Your task to perform on an android device: Open Yahoo.com Image 0: 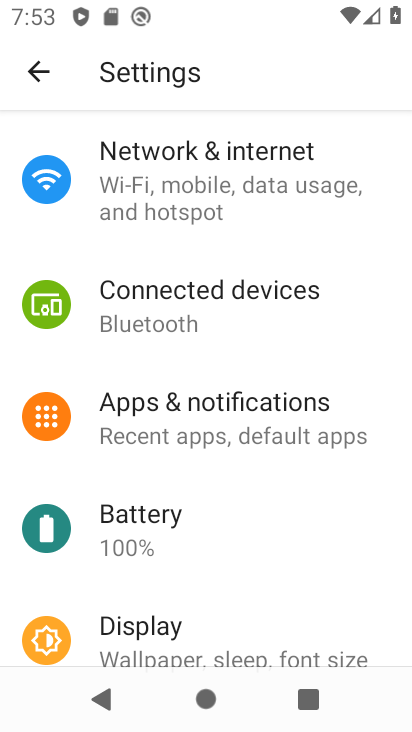
Step 0: press home button
Your task to perform on an android device: Open Yahoo.com Image 1: 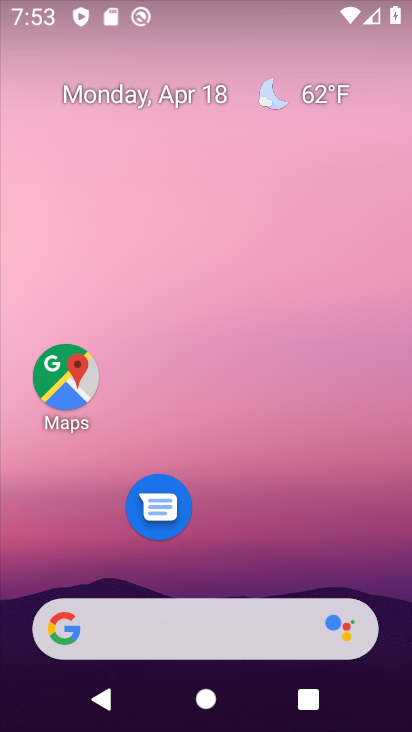
Step 1: drag from (278, 556) to (264, 28)
Your task to perform on an android device: Open Yahoo.com Image 2: 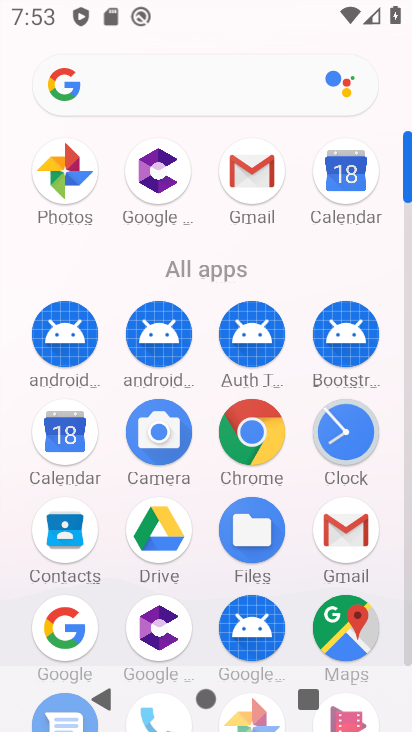
Step 2: click (225, 440)
Your task to perform on an android device: Open Yahoo.com Image 3: 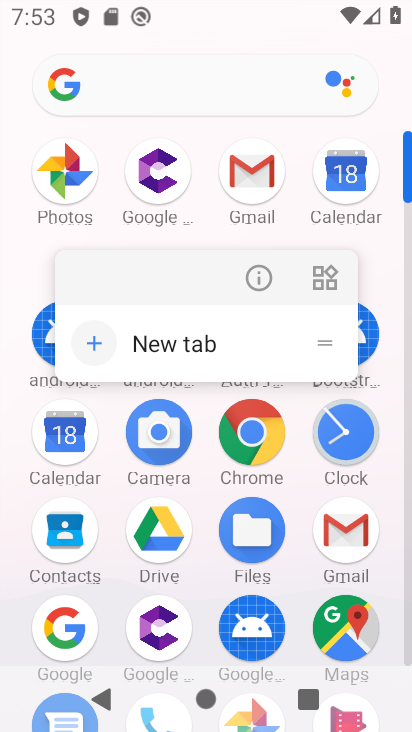
Step 3: click (227, 441)
Your task to perform on an android device: Open Yahoo.com Image 4: 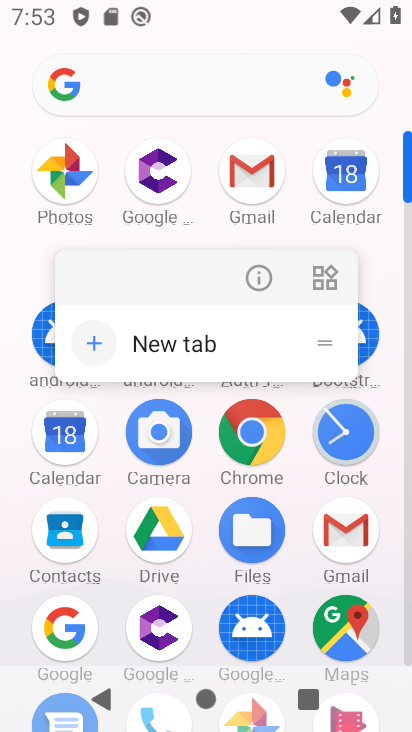
Step 4: click (227, 440)
Your task to perform on an android device: Open Yahoo.com Image 5: 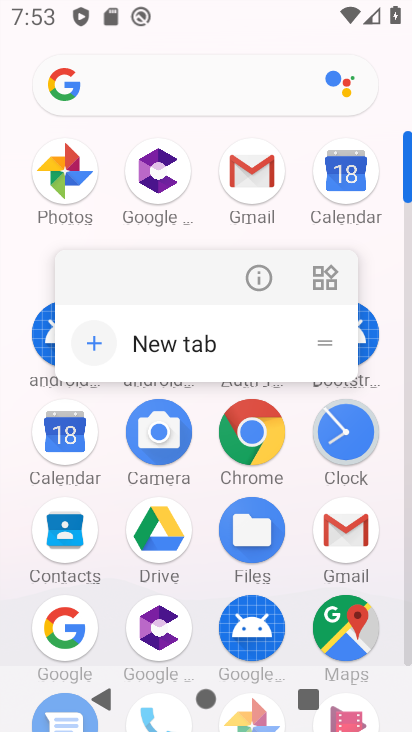
Step 5: click (227, 440)
Your task to perform on an android device: Open Yahoo.com Image 6: 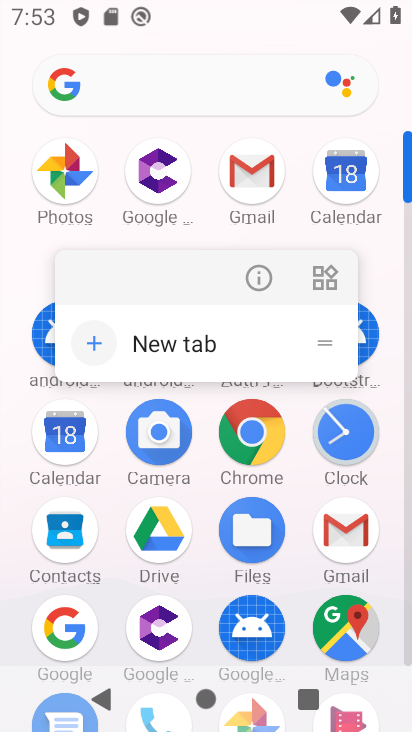
Step 6: click (227, 440)
Your task to perform on an android device: Open Yahoo.com Image 7: 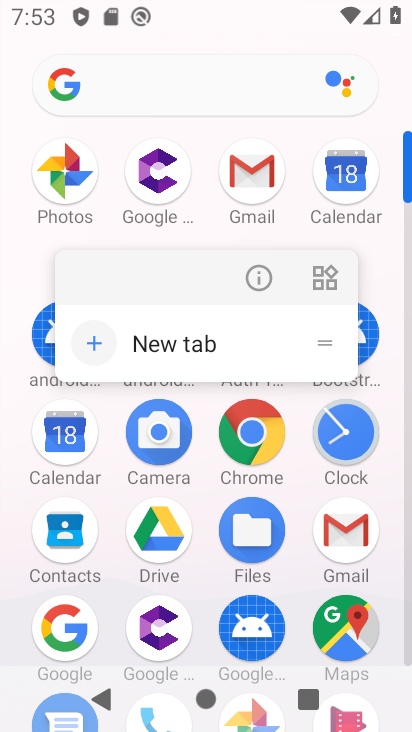
Step 7: click (259, 427)
Your task to perform on an android device: Open Yahoo.com Image 8: 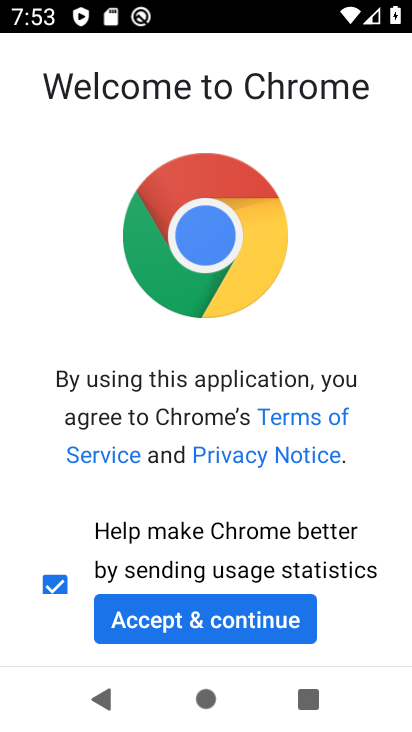
Step 8: click (261, 612)
Your task to perform on an android device: Open Yahoo.com Image 9: 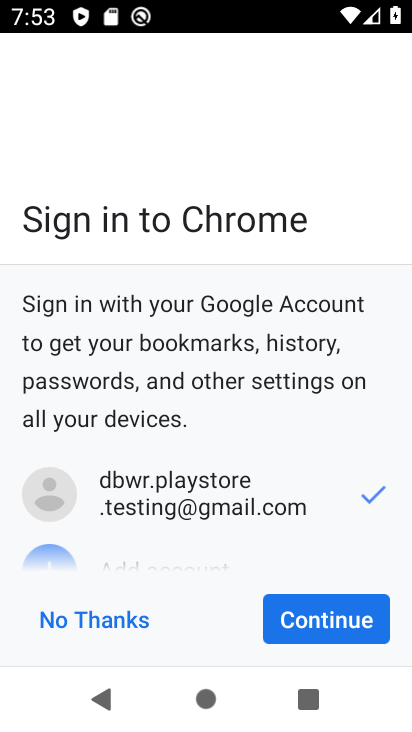
Step 9: click (311, 606)
Your task to perform on an android device: Open Yahoo.com Image 10: 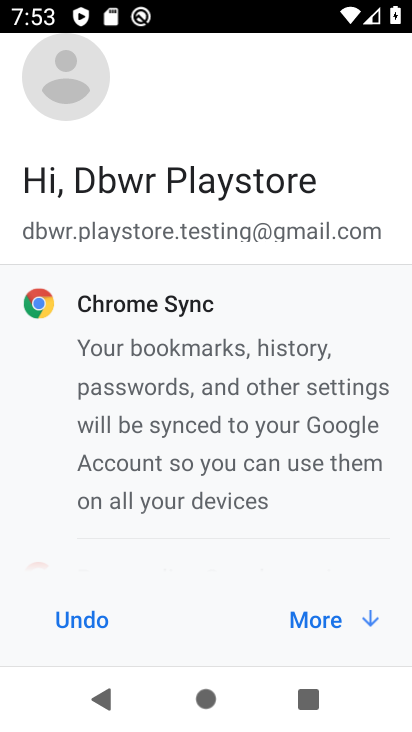
Step 10: click (348, 622)
Your task to perform on an android device: Open Yahoo.com Image 11: 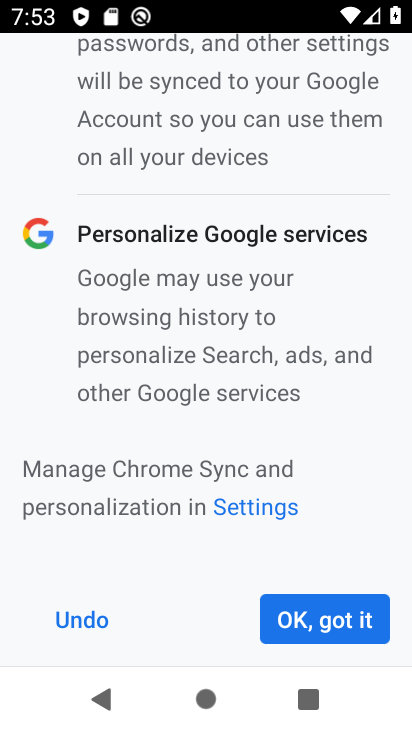
Step 11: click (357, 616)
Your task to perform on an android device: Open Yahoo.com Image 12: 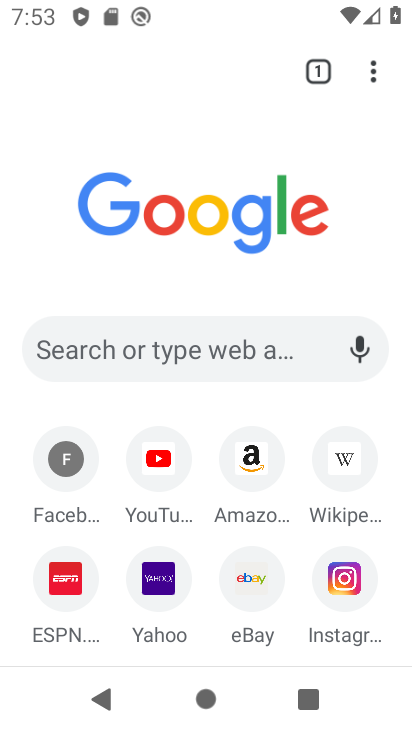
Step 12: click (167, 586)
Your task to perform on an android device: Open Yahoo.com Image 13: 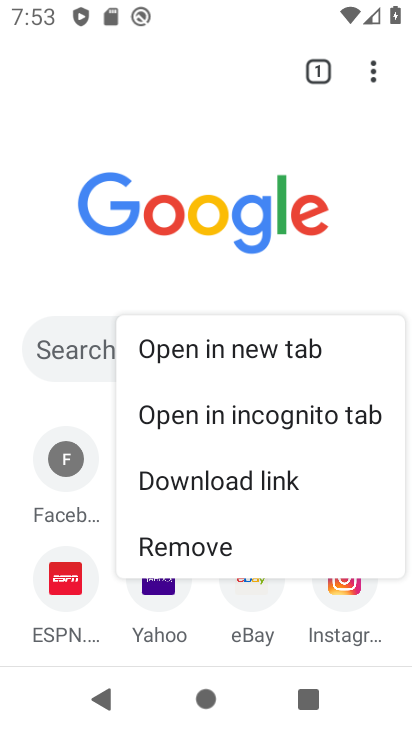
Step 13: click (167, 593)
Your task to perform on an android device: Open Yahoo.com Image 14: 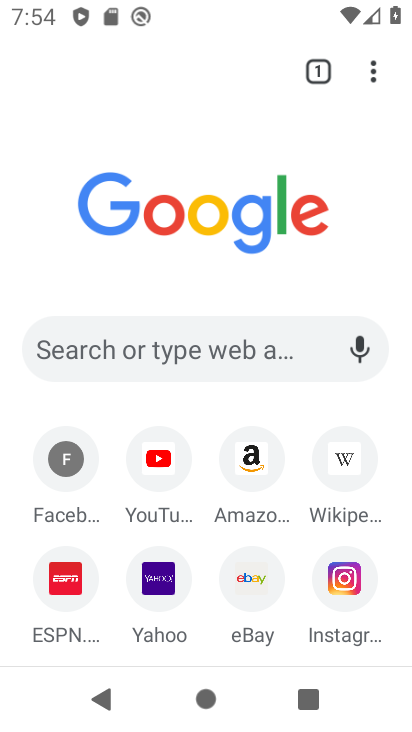
Step 14: click (168, 594)
Your task to perform on an android device: Open Yahoo.com Image 15: 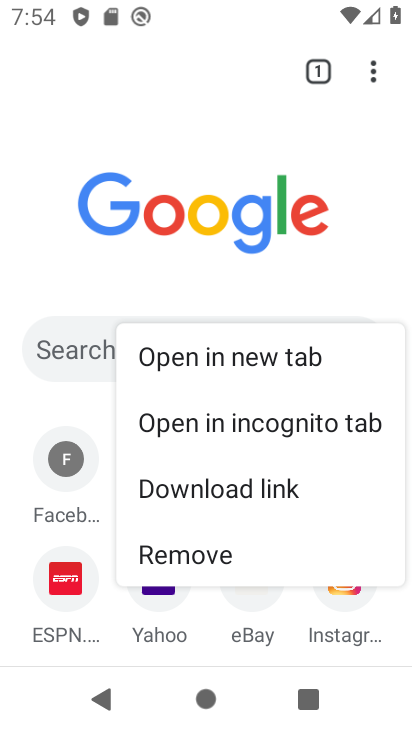
Step 15: click (232, 355)
Your task to perform on an android device: Open Yahoo.com Image 16: 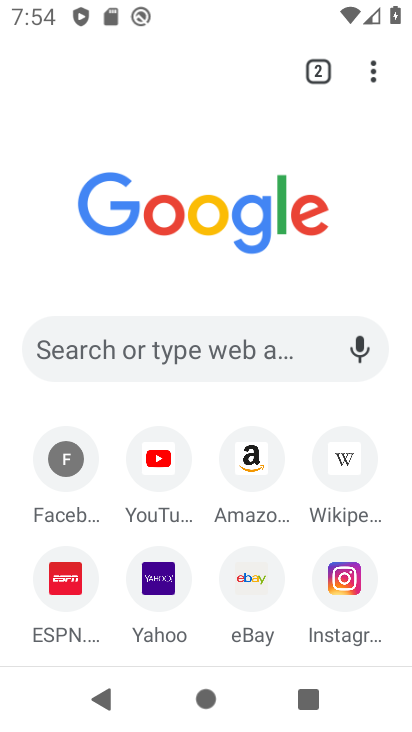
Step 16: click (168, 578)
Your task to perform on an android device: Open Yahoo.com Image 17: 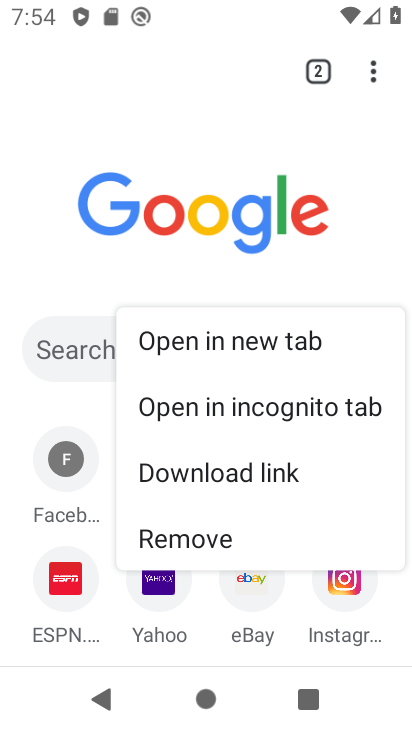
Step 17: click (167, 578)
Your task to perform on an android device: Open Yahoo.com Image 18: 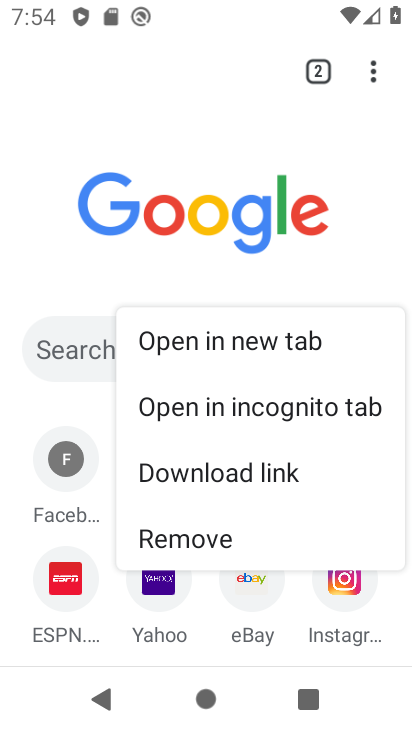
Step 18: click (142, 595)
Your task to perform on an android device: Open Yahoo.com Image 19: 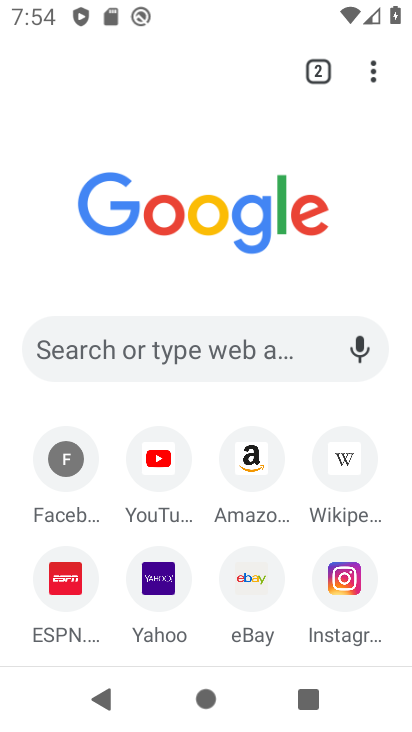
Step 19: click (157, 574)
Your task to perform on an android device: Open Yahoo.com Image 20: 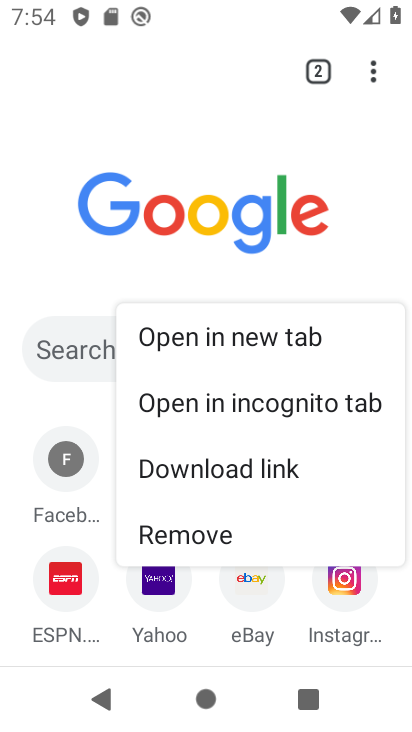
Step 20: click (233, 332)
Your task to perform on an android device: Open Yahoo.com Image 21: 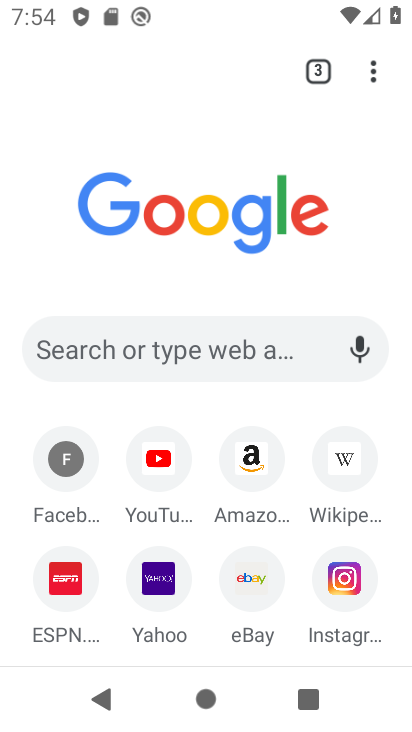
Step 21: task complete